Your task to perform on an android device: toggle sleep mode Image 0: 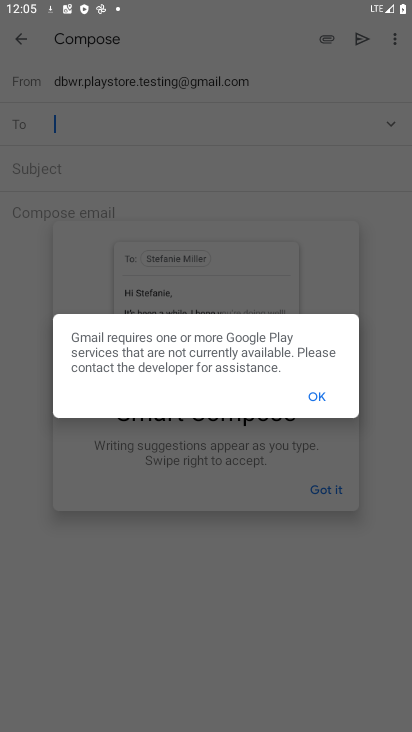
Step 0: press home button
Your task to perform on an android device: toggle sleep mode Image 1: 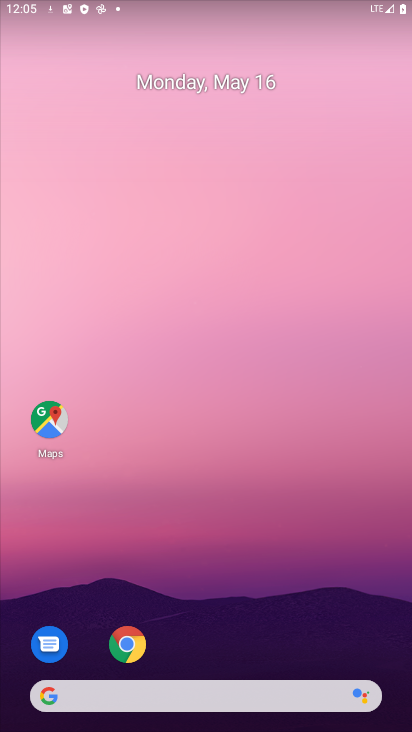
Step 1: drag from (166, 715) to (372, 311)
Your task to perform on an android device: toggle sleep mode Image 2: 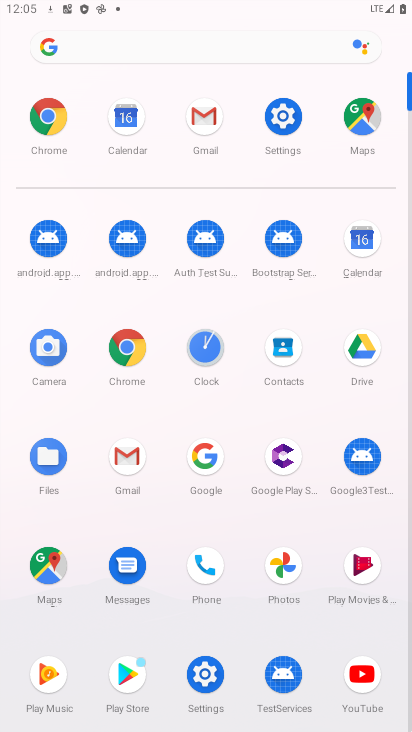
Step 2: click (202, 660)
Your task to perform on an android device: toggle sleep mode Image 3: 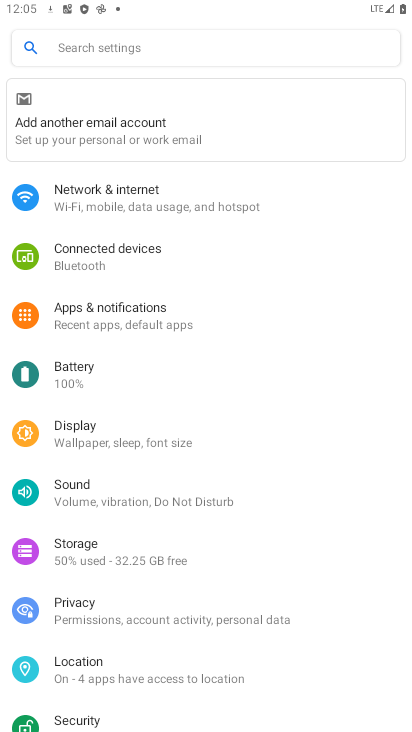
Step 3: click (107, 51)
Your task to perform on an android device: toggle sleep mode Image 4: 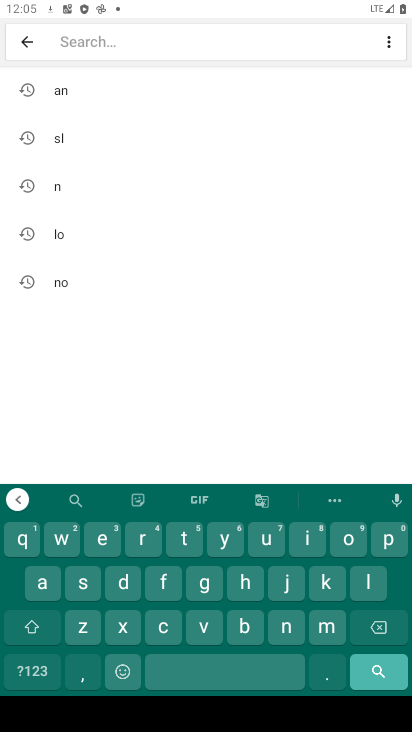
Step 4: click (94, 138)
Your task to perform on an android device: toggle sleep mode Image 5: 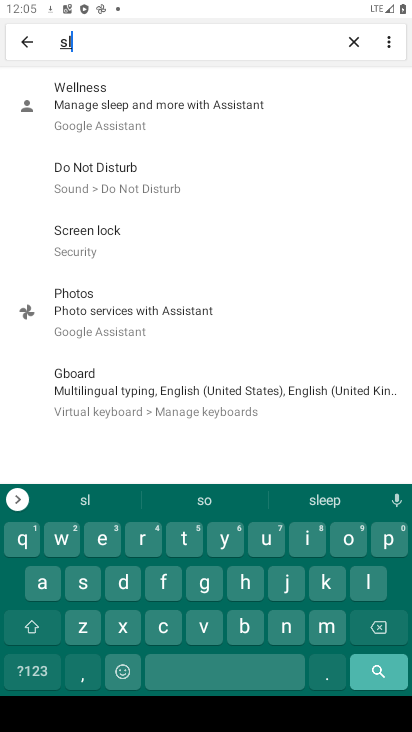
Step 5: click (126, 123)
Your task to perform on an android device: toggle sleep mode Image 6: 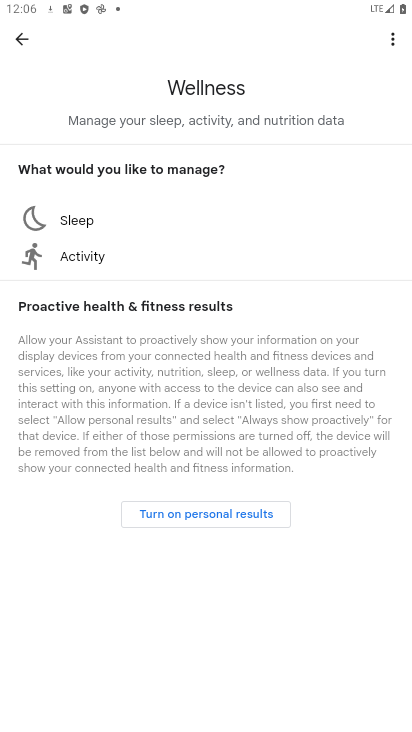
Step 6: click (54, 214)
Your task to perform on an android device: toggle sleep mode Image 7: 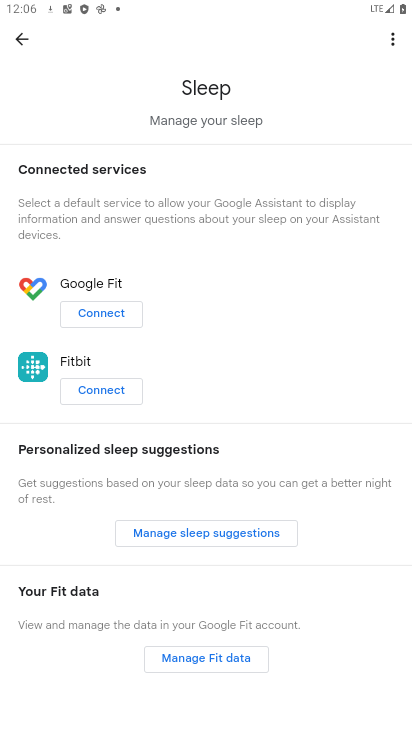
Step 7: task complete